Your task to perform on an android device: toggle airplane mode Image 0: 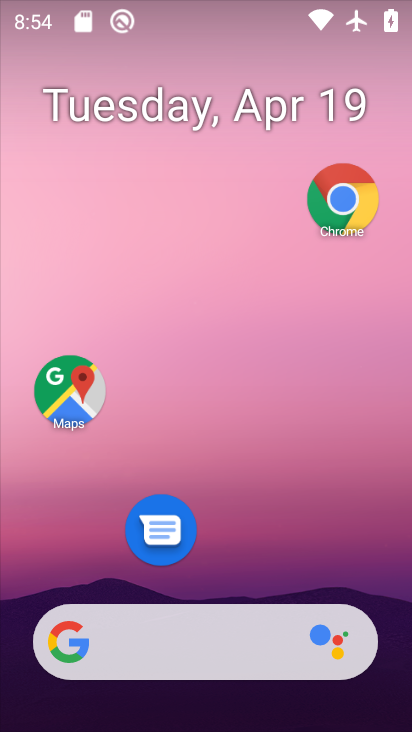
Step 0: click (259, 134)
Your task to perform on an android device: toggle airplane mode Image 1: 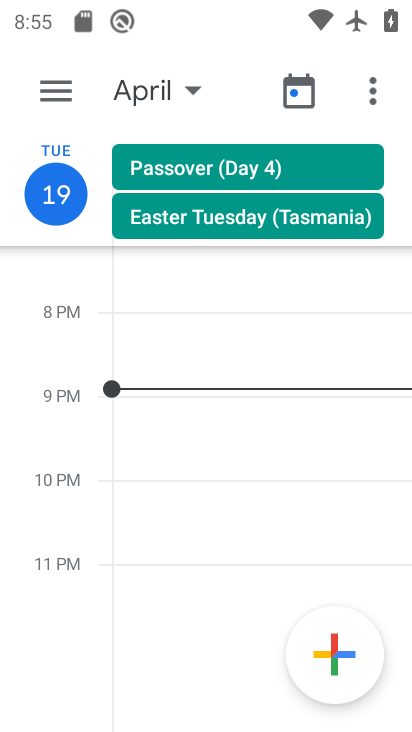
Step 1: press home button
Your task to perform on an android device: toggle airplane mode Image 2: 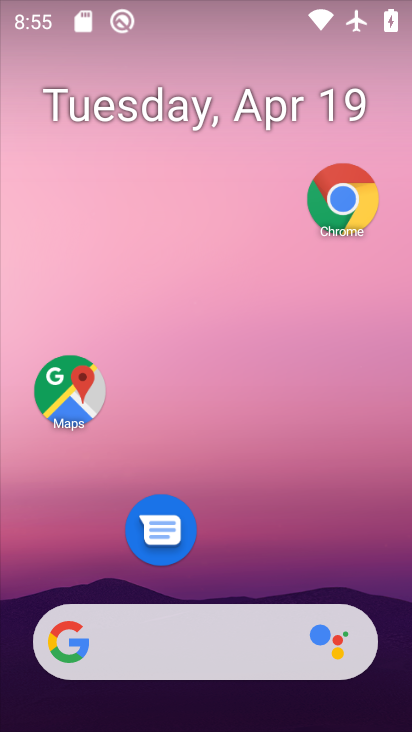
Step 2: drag from (215, 568) to (294, 131)
Your task to perform on an android device: toggle airplane mode Image 3: 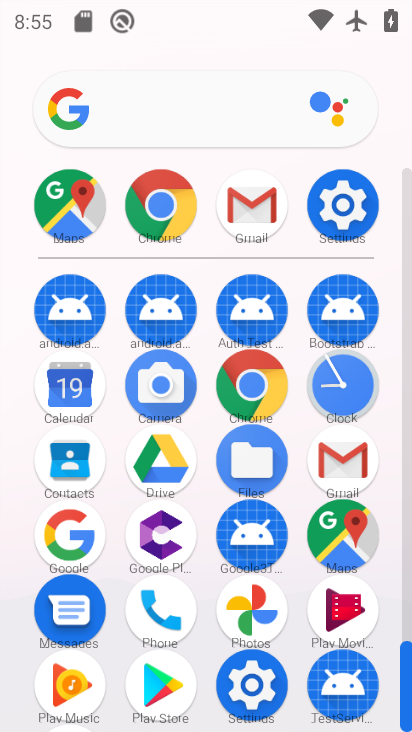
Step 3: click (341, 197)
Your task to perform on an android device: toggle airplane mode Image 4: 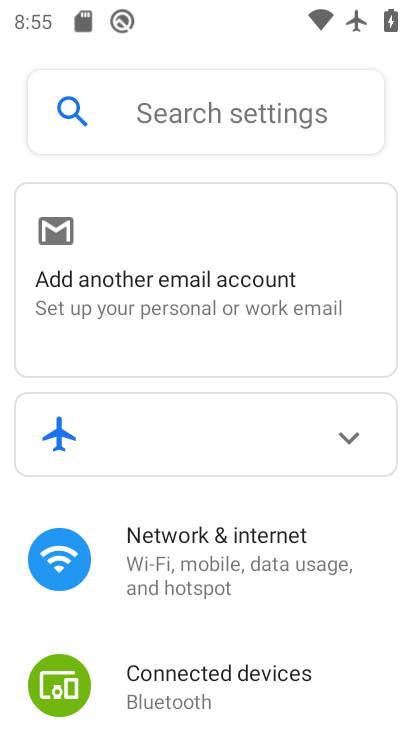
Step 4: click (156, 567)
Your task to perform on an android device: toggle airplane mode Image 5: 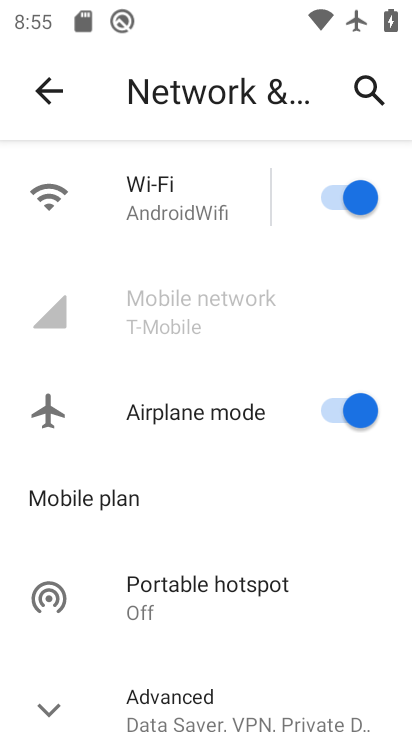
Step 5: click (330, 411)
Your task to perform on an android device: toggle airplane mode Image 6: 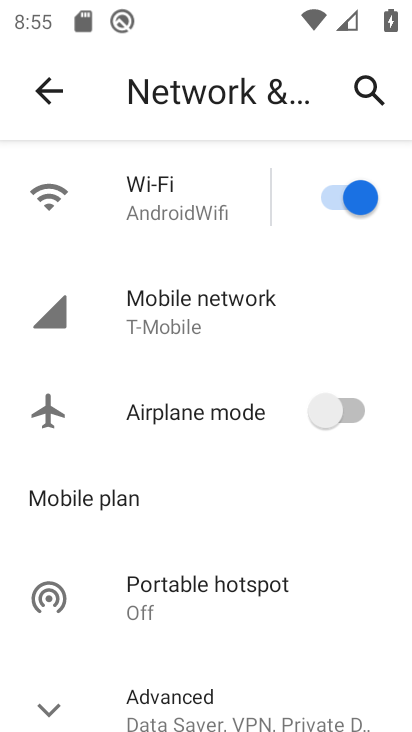
Step 6: task complete